Your task to perform on an android device: see tabs open on other devices in the chrome app Image 0: 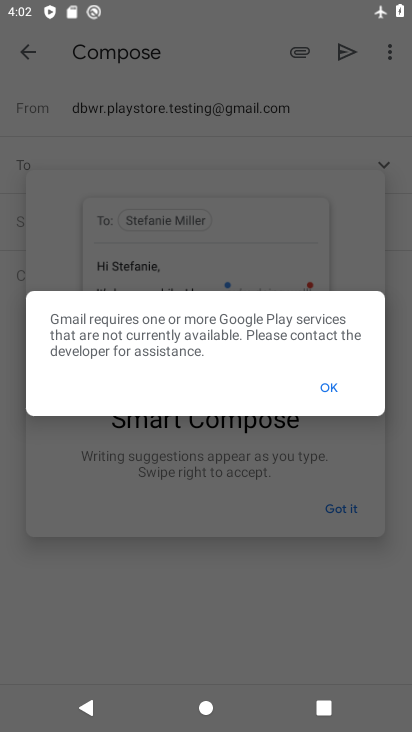
Step 0: press home button
Your task to perform on an android device: see tabs open on other devices in the chrome app Image 1: 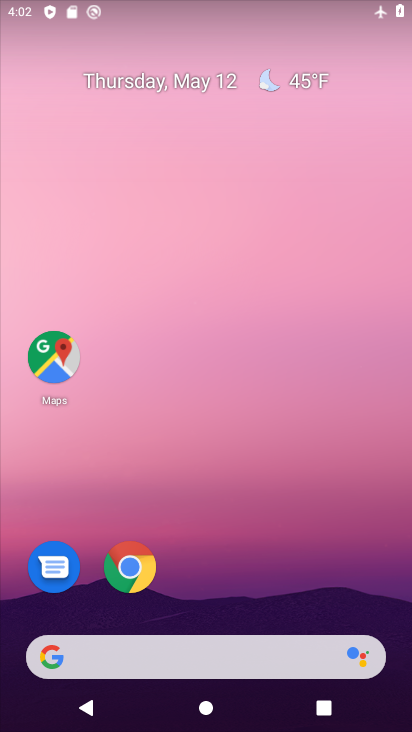
Step 1: click (139, 577)
Your task to perform on an android device: see tabs open on other devices in the chrome app Image 2: 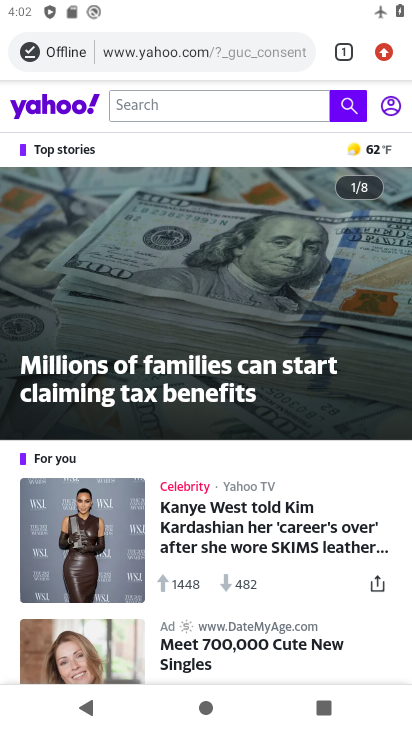
Step 2: click (385, 54)
Your task to perform on an android device: see tabs open on other devices in the chrome app Image 3: 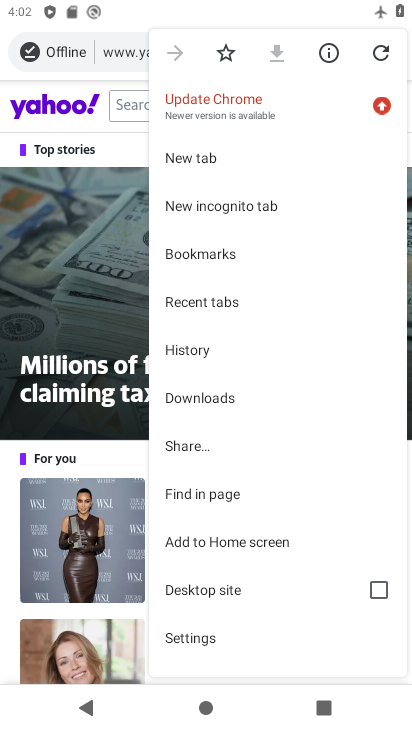
Step 3: click (210, 301)
Your task to perform on an android device: see tabs open on other devices in the chrome app Image 4: 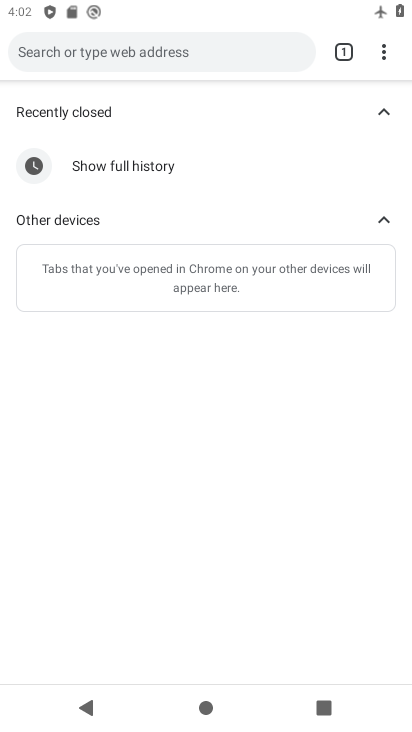
Step 4: task complete